Your task to perform on an android device: toggle wifi Image 0: 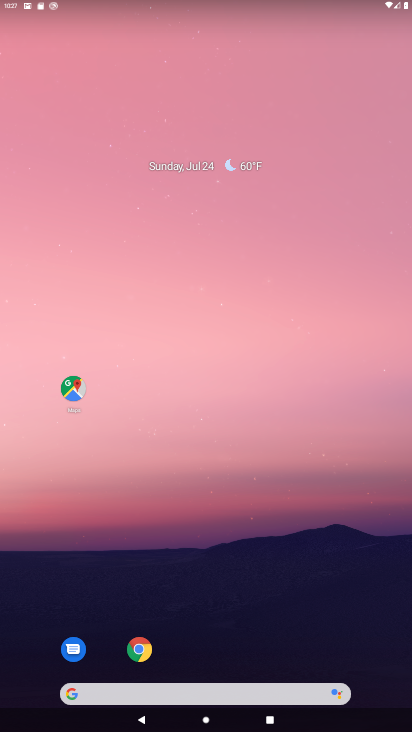
Step 0: drag from (229, 649) to (187, 48)
Your task to perform on an android device: toggle wifi Image 1: 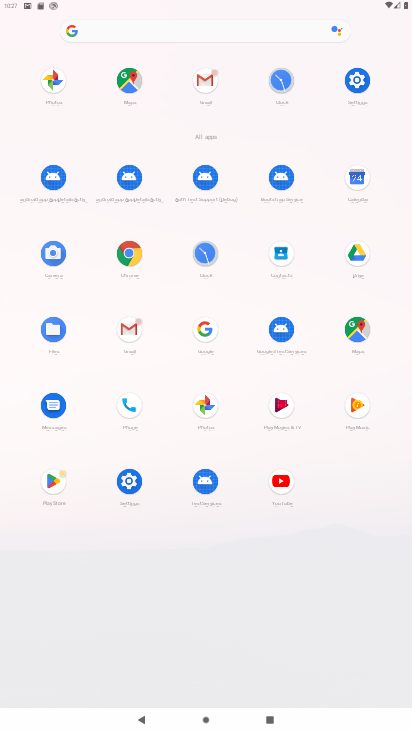
Step 1: click (365, 89)
Your task to perform on an android device: toggle wifi Image 2: 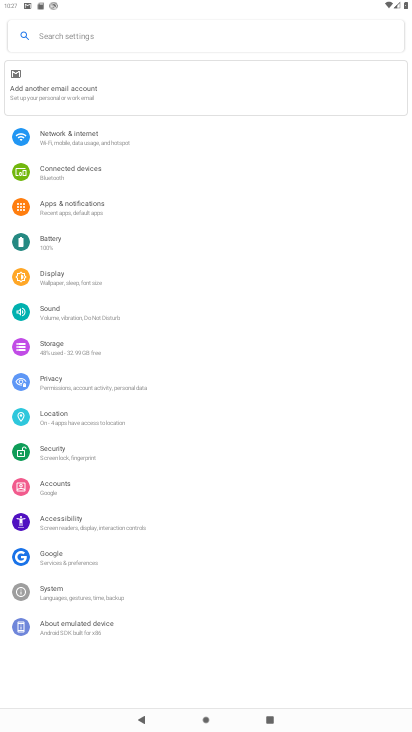
Step 2: click (237, 153)
Your task to perform on an android device: toggle wifi Image 3: 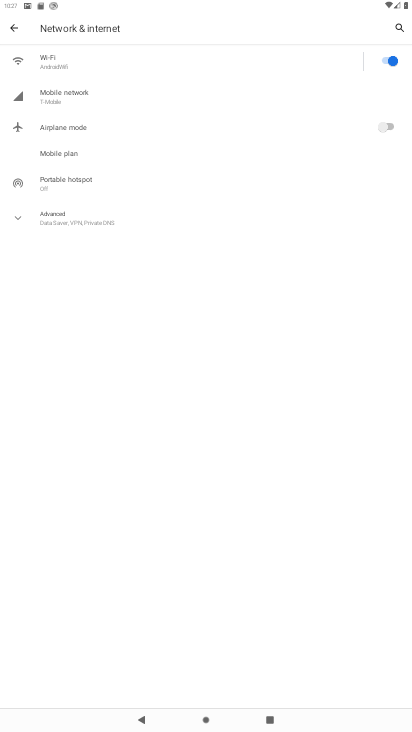
Step 3: click (384, 60)
Your task to perform on an android device: toggle wifi Image 4: 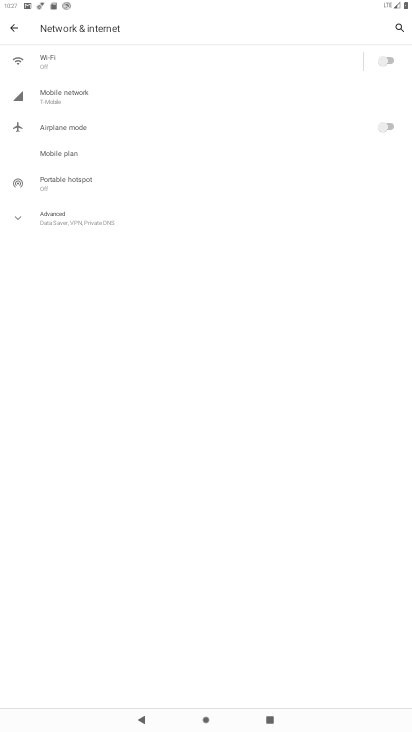
Step 4: task complete